Your task to perform on an android device: refresh tabs in the chrome app Image 0: 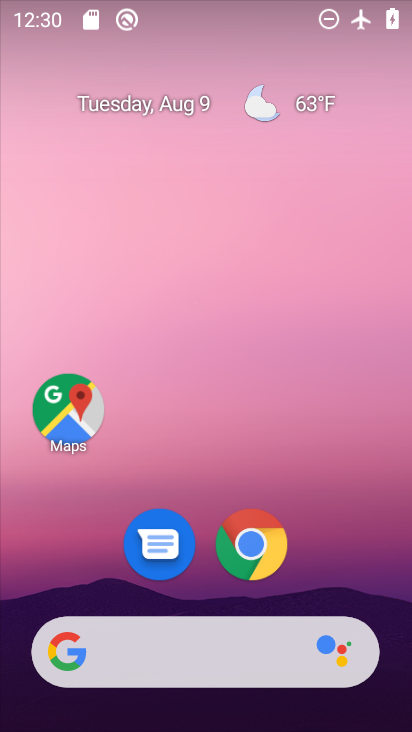
Step 0: click (255, 547)
Your task to perform on an android device: refresh tabs in the chrome app Image 1: 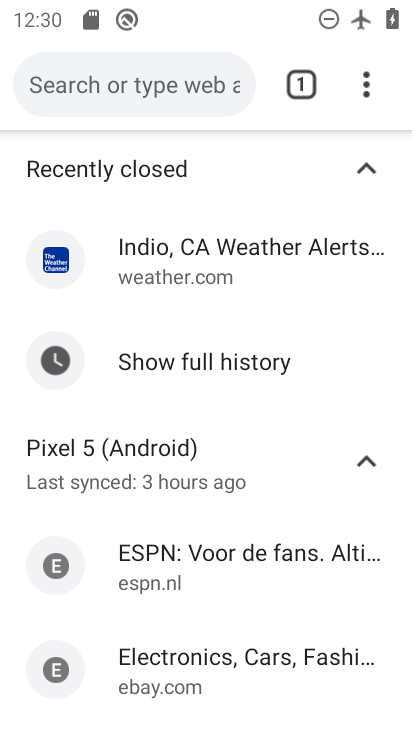
Step 1: click (366, 85)
Your task to perform on an android device: refresh tabs in the chrome app Image 2: 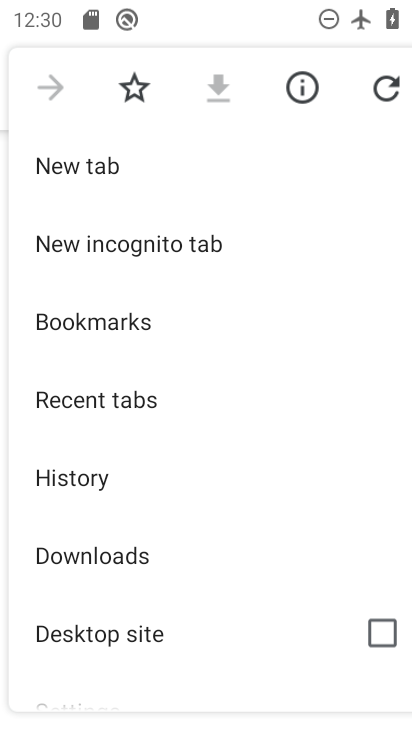
Step 2: click (388, 94)
Your task to perform on an android device: refresh tabs in the chrome app Image 3: 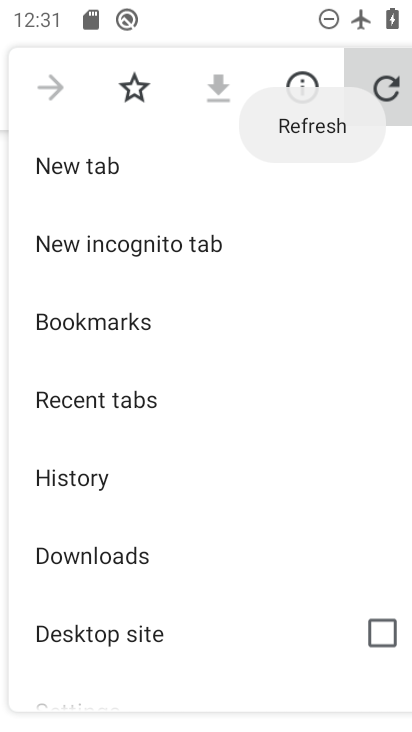
Step 3: click (388, 94)
Your task to perform on an android device: refresh tabs in the chrome app Image 4: 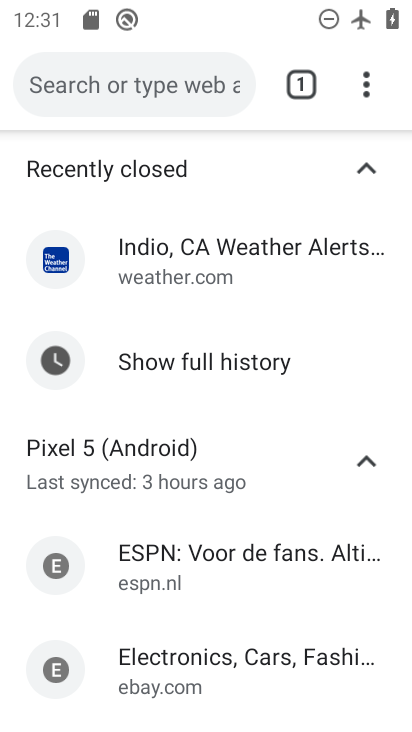
Step 4: task complete